Your task to perform on an android device: Do I have any events today? Image 0: 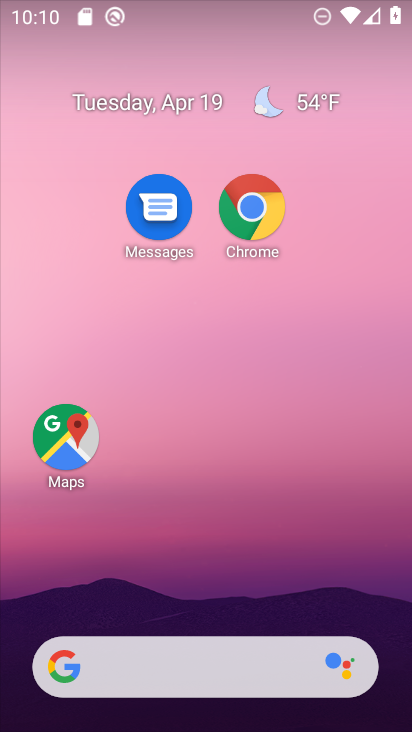
Step 0: drag from (206, 637) to (185, 317)
Your task to perform on an android device: Do I have any events today? Image 1: 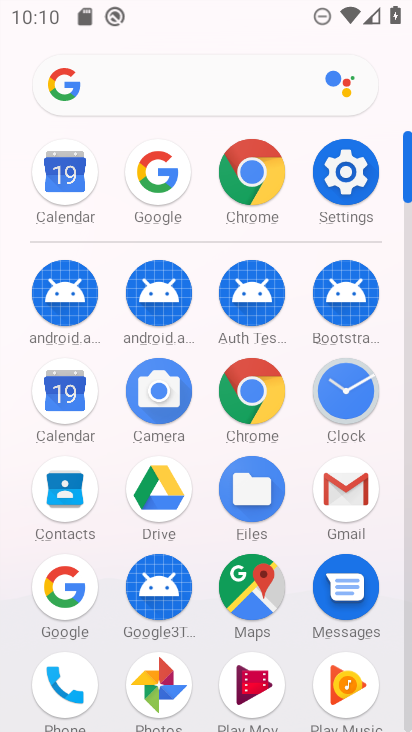
Step 1: click (62, 186)
Your task to perform on an android device: Do I have any events today? Image 2: 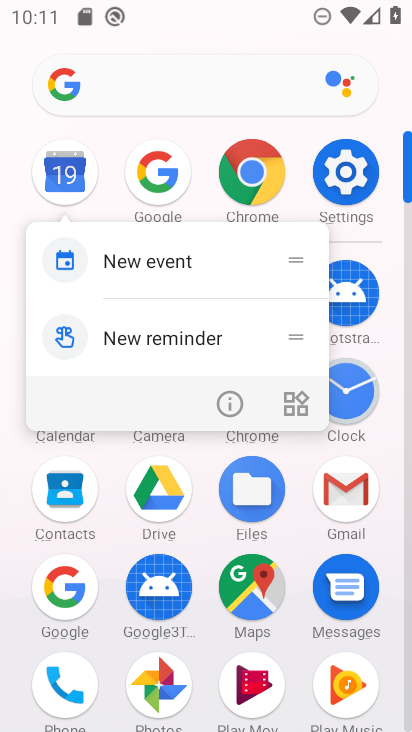
Step 2: click (138, 260)
Your task to perform on an android device: Do I have any events today? Image 3: 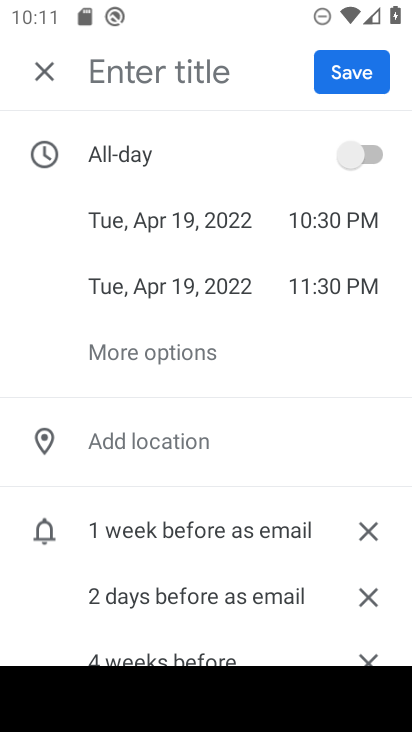
Step 3: task complete